Your task to perform on an android device: Open sound settings Image 0: 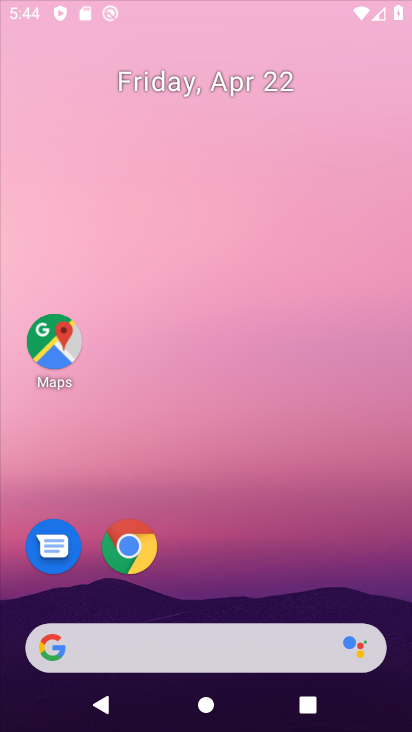
Step 0: drag from (292, 364) to (200, 148)
Your task to perform on an android device: Open sound settings Image 1: 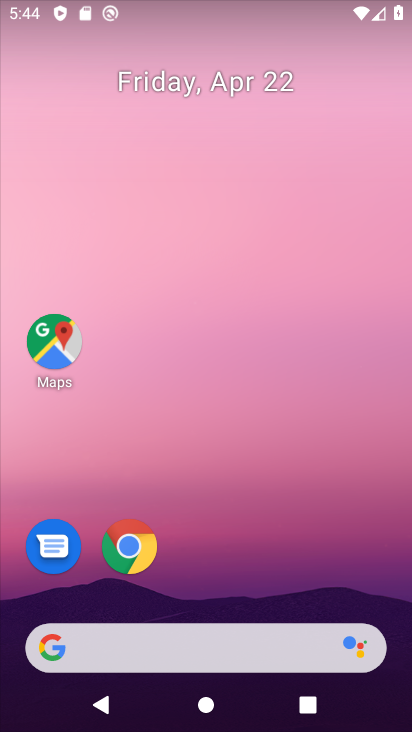
Step 1: drag from (193, 518) to (210, 201)
Your task to perform on an android device: Open sound settings Image 2: 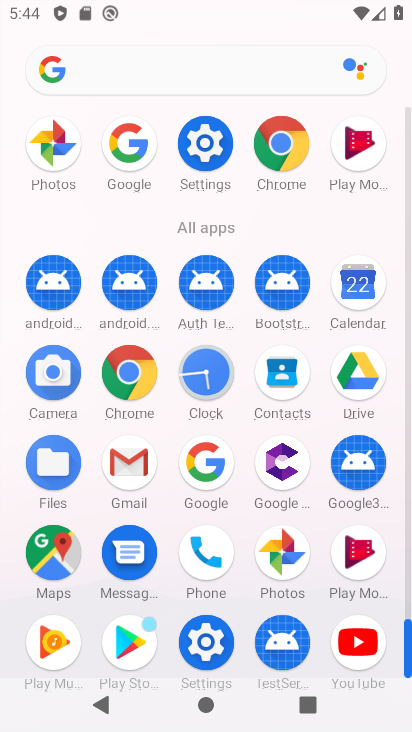
Step 2: click (199, 157)
Your task to perform on an android device: Open sound settings Image 3: 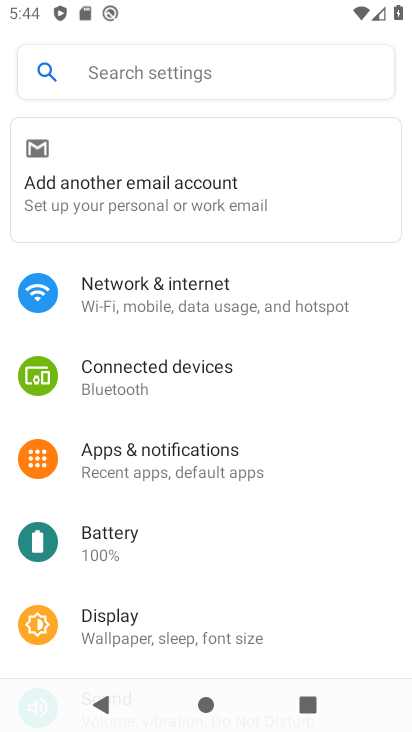
Step 3: drag from (171, 543) to (136, 222)
Your task to perform on an android device: Open sound settings Image 4: 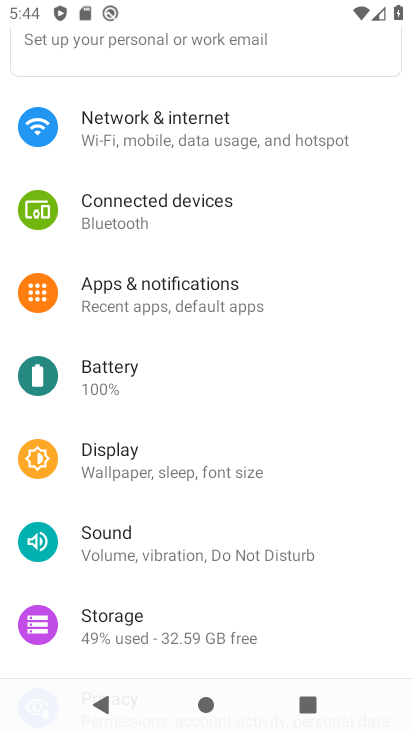
Step 4: click (118, 577)
Your task to perform on an android device: Open sound settings Image 5: 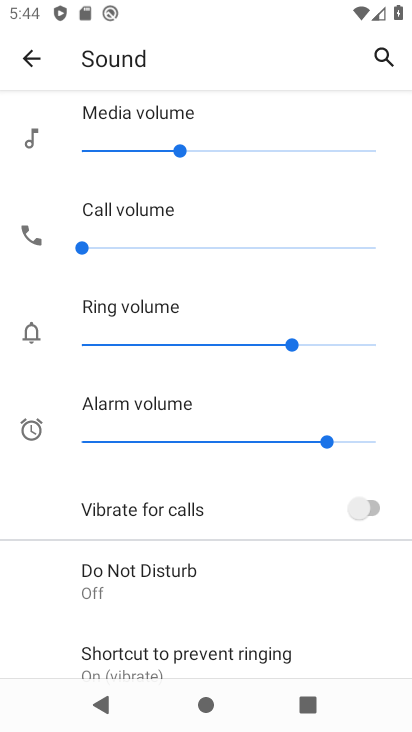
Step 5: task complete